Your task to perform on an android device: When is my next meeting? Image 0: 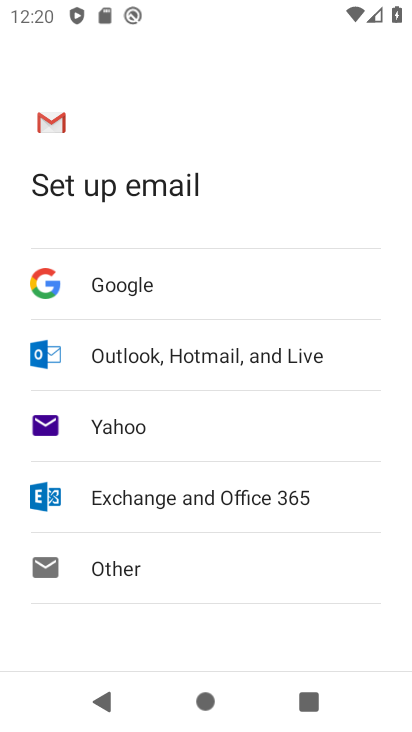
Step 0: press home button
Your task to perform on an android device: When is my next meeting? Image 1: 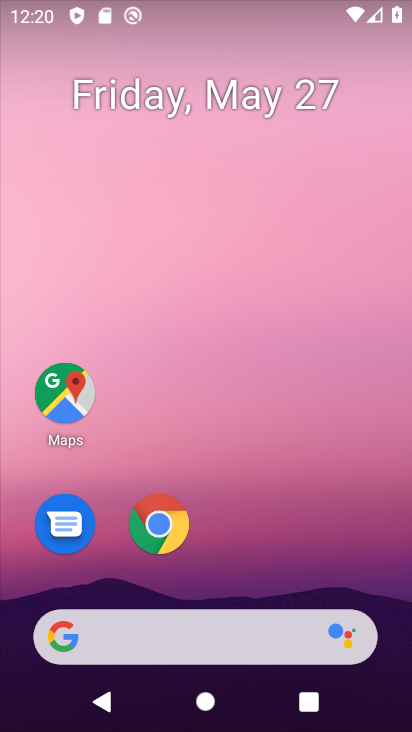
Step 1: drag from (284, 533) to (270, 14)
Your task to perform on an android device: When is my next meeting? Image 2: 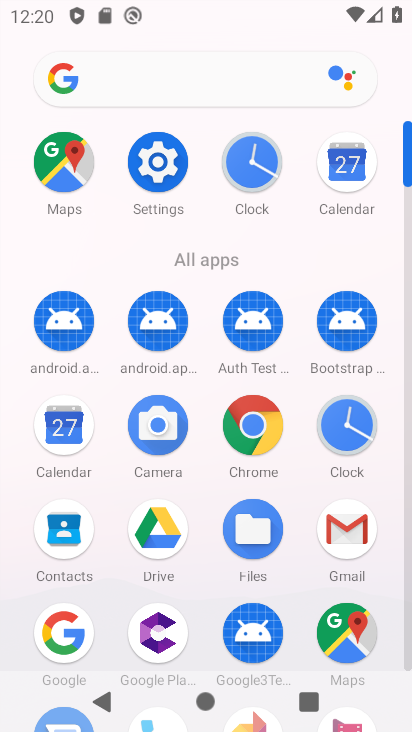
Step 2: click (336, 165)
Your task to perform on an android device: When is my next meeting? Image 3: 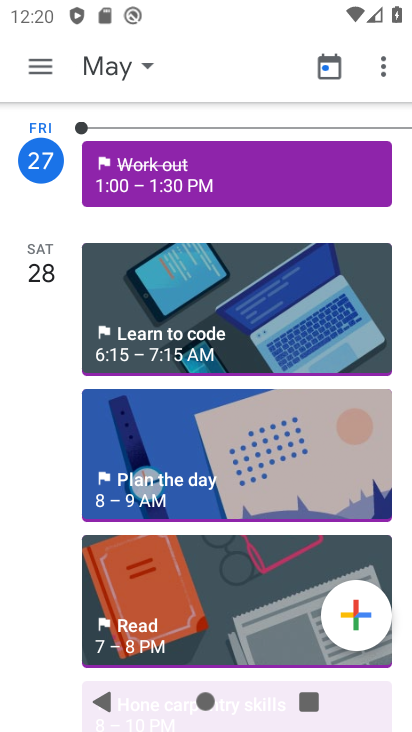
Step 3: task complete